Your task to perform on an android device: turn on notifications settings in the gmail app Image 0: 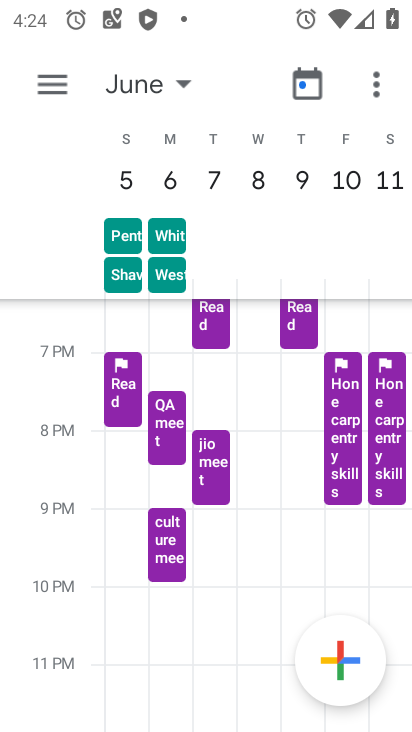
Step 0: press home button
Your task to perform on an android device: turn on notifications settings in the gmail app Image 1: 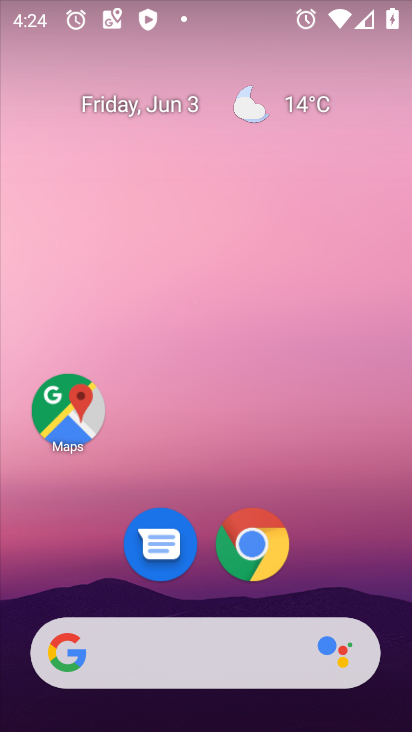
Step 1: drag from (400, 626) to (385, 19)
Your task to perform on an android device: turn on notifications settings in the gmail app Image 2: 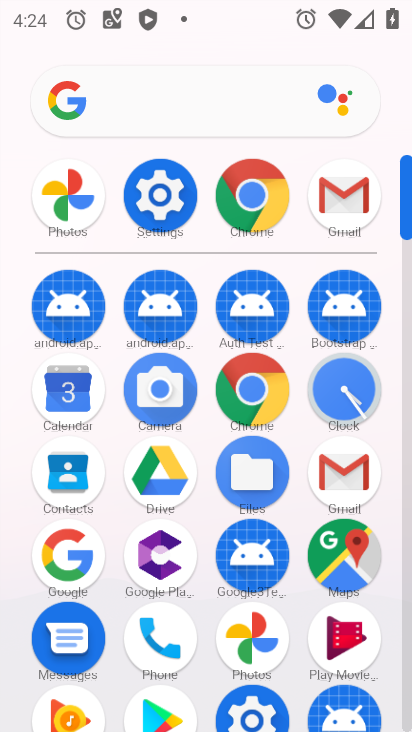
Step 2: click (340, 470)
Your task to perform on an android device: turn on notifications settings in the gmail app Image 3: 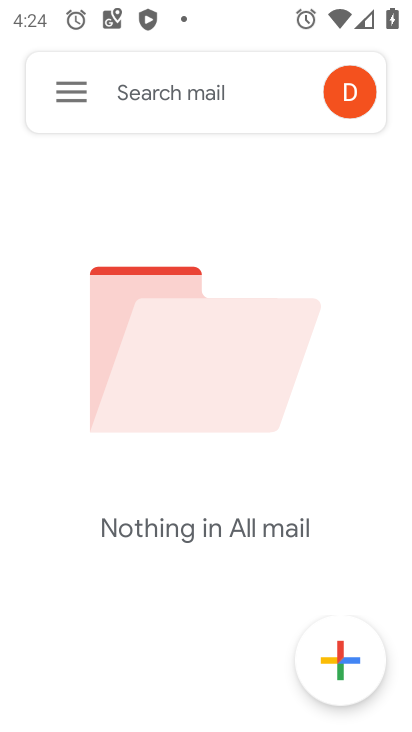
Step 3: click (66, 98)
Your task to perform on an android device: turn on notifications settings in the gmail app Image 4: 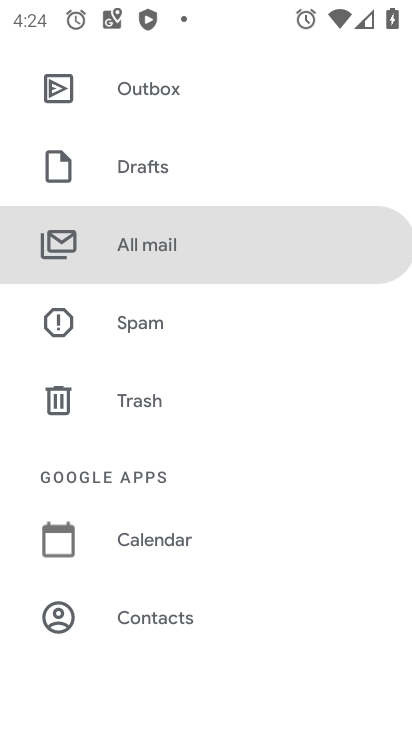
Step 4: drag from (231, 599) to (207, 119)
Your task to perform on an android device: turn on notifications settings in the gmail app Image 5: 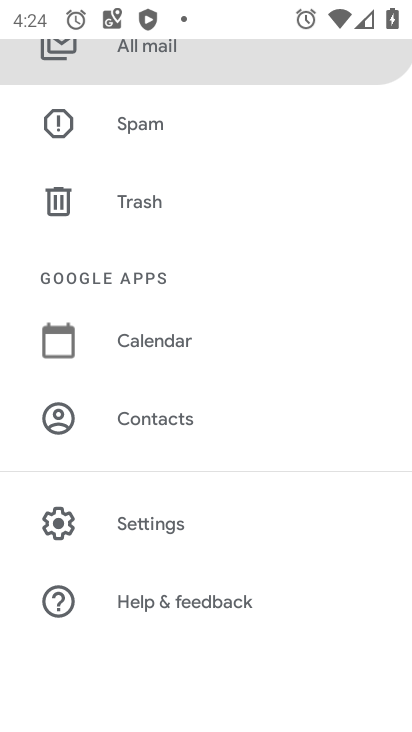
Step 5: click (164, 530)
Your task to perform on an android device: turn on notifications settings in the gmail app Image 6: 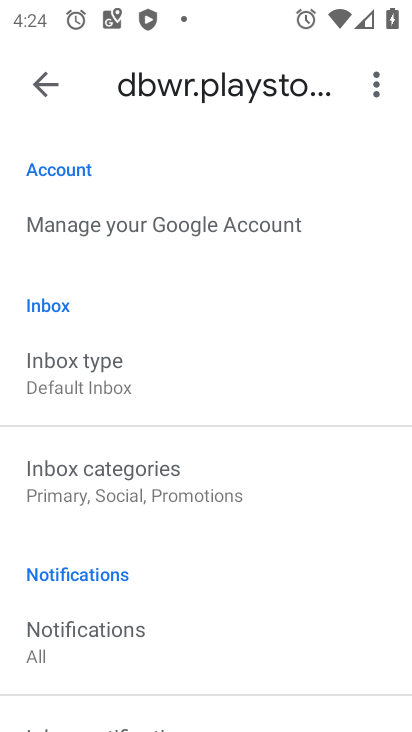
Step 6: drag from (273, 654) to (257, 241)
Your task to perform on an android device: turn on notifications settings in the gmail app Image 7: 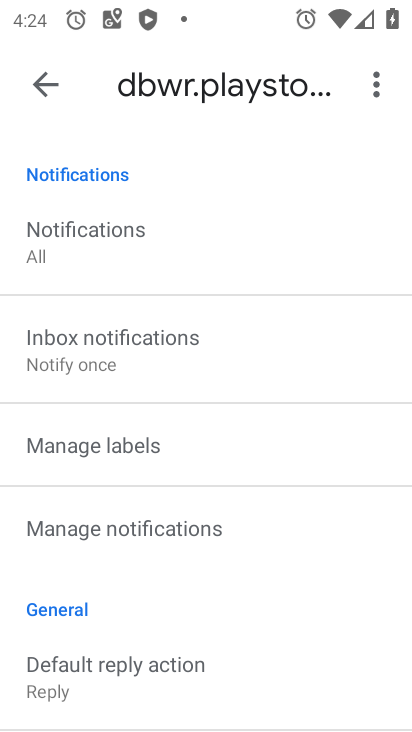
Step 7: click (83, 526)
Your task to perform on an android device: turn on notifications settings in the gmail app Image 8: 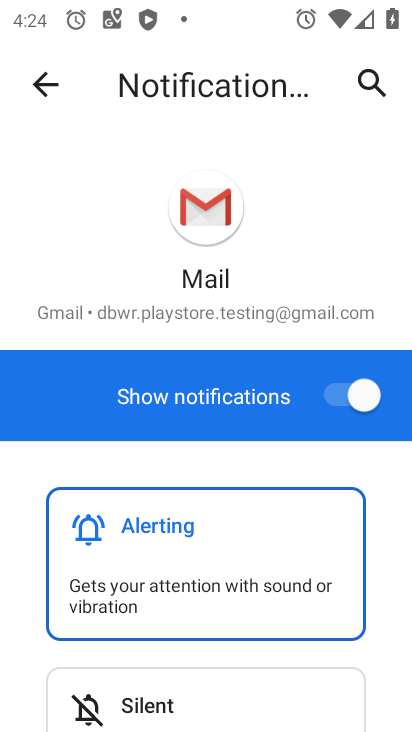
Step 8: task complete